Your task to perform on an android device: read, delete, or share a saved page in the chrome app Image 0: 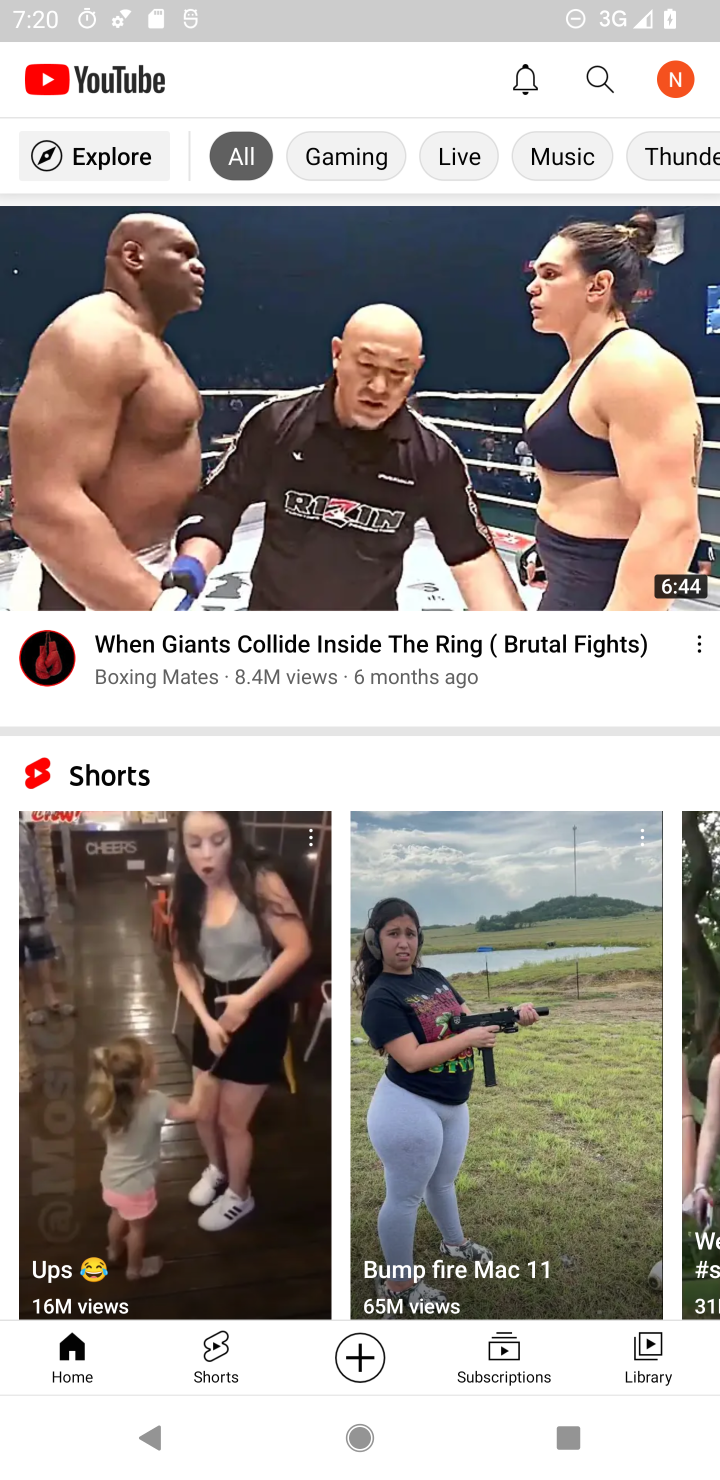
Step 0: press home button
Your task to perform on an android device: read, delete, or share a saved page in the chrome app Image 1: 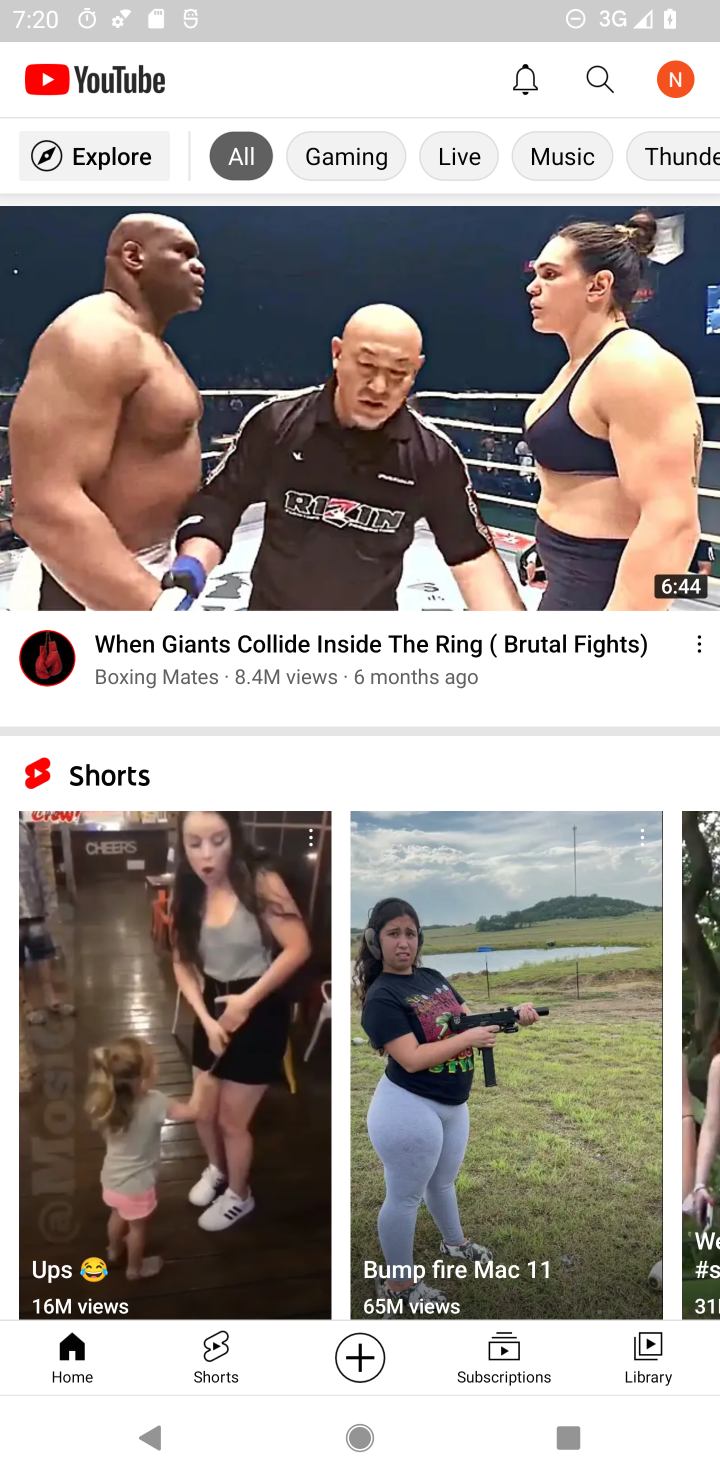
Step 1: click (492, 169)
Your task to perform on an android device: read, delete, or share a saved page in the chrome app Image 2: 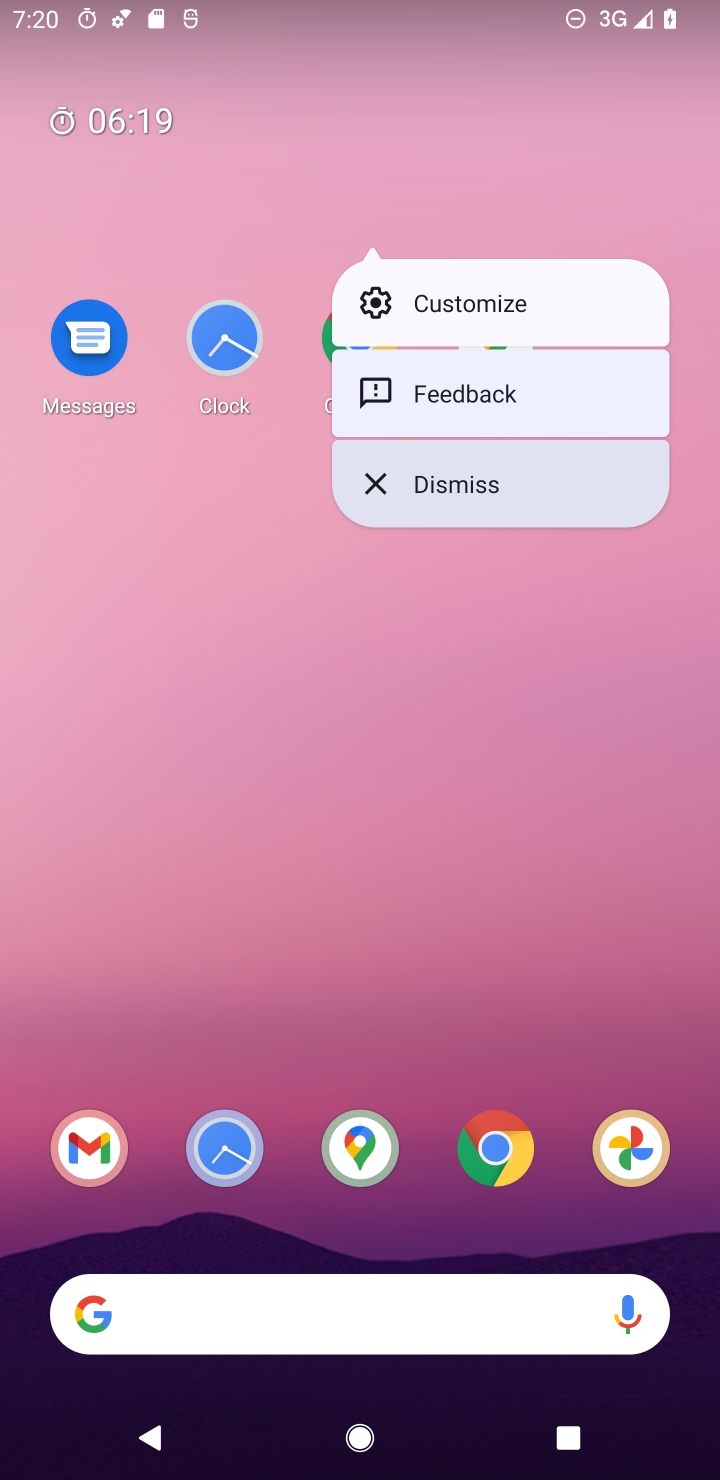
Step 2: drag from (414, 1214) to (474, 299)
Your task to perform on an android device: read, delete, or share a saved page in the chrome app Image 3: 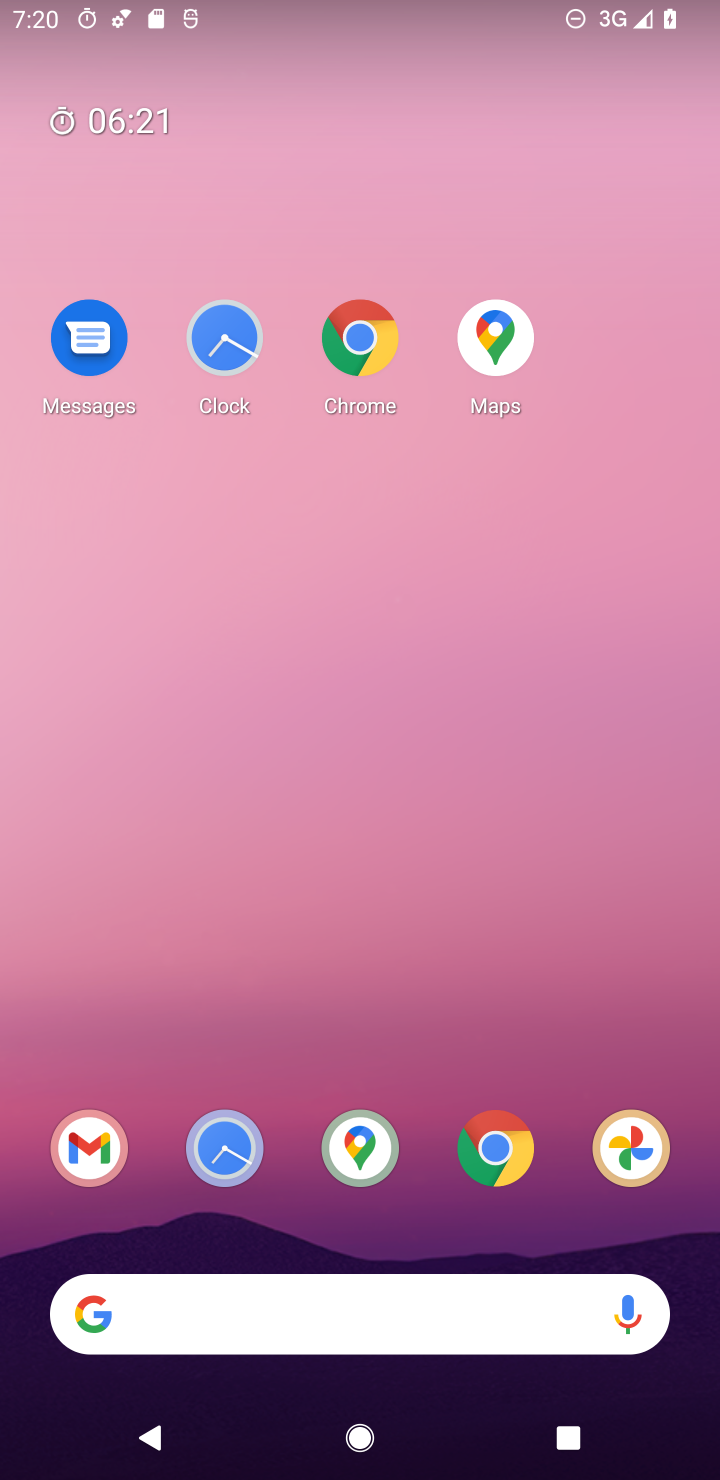
Step 3: drag from (431, 845) to (529, 146)
Your task to perform on an android device: read, delete, or share a saved page in the chrome app Image 4: 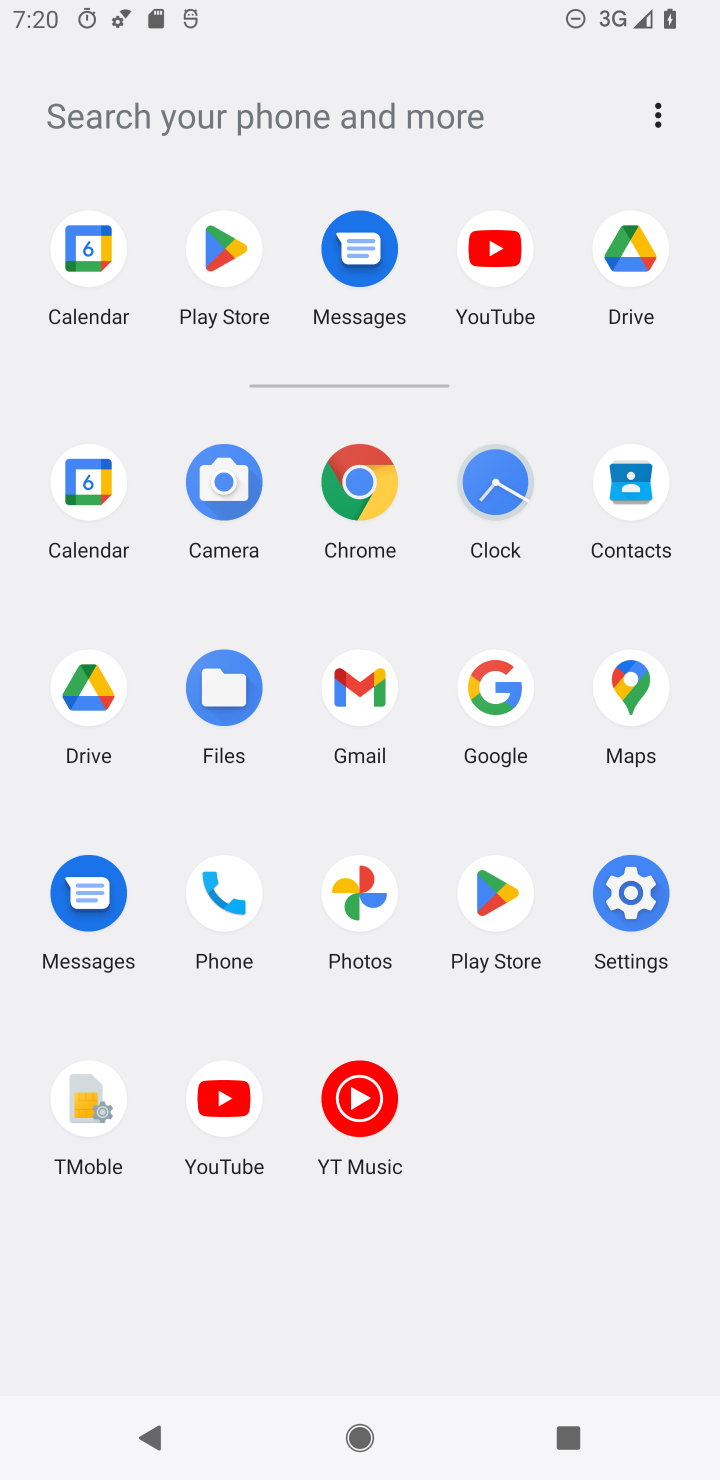
Step 4: click (358, 479)
Your task to perform on an android device: read, delete, or share a saved page in the chrome app Image 5: 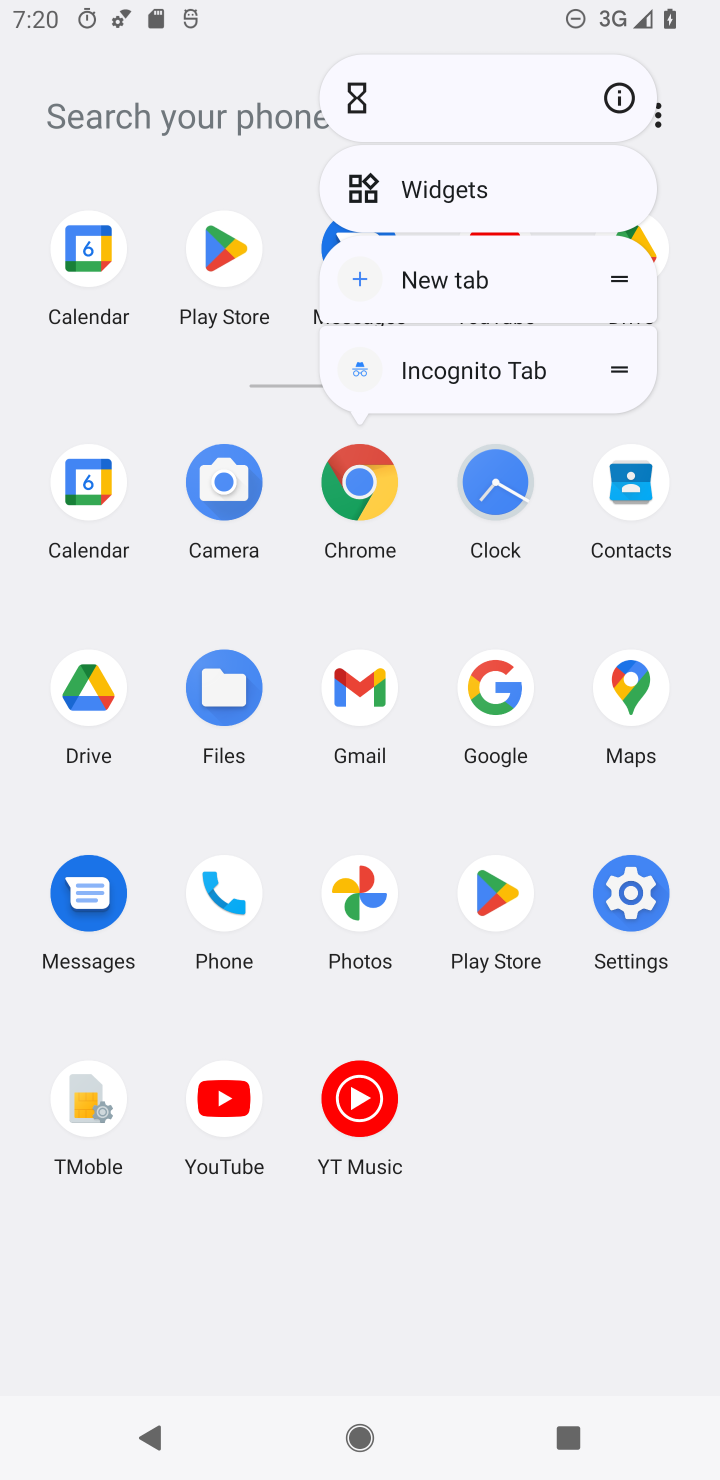
Step 5: click (622, 100)
Your task to perform on an android device: read, delete, or share a saved page in the chrome app Image 6: 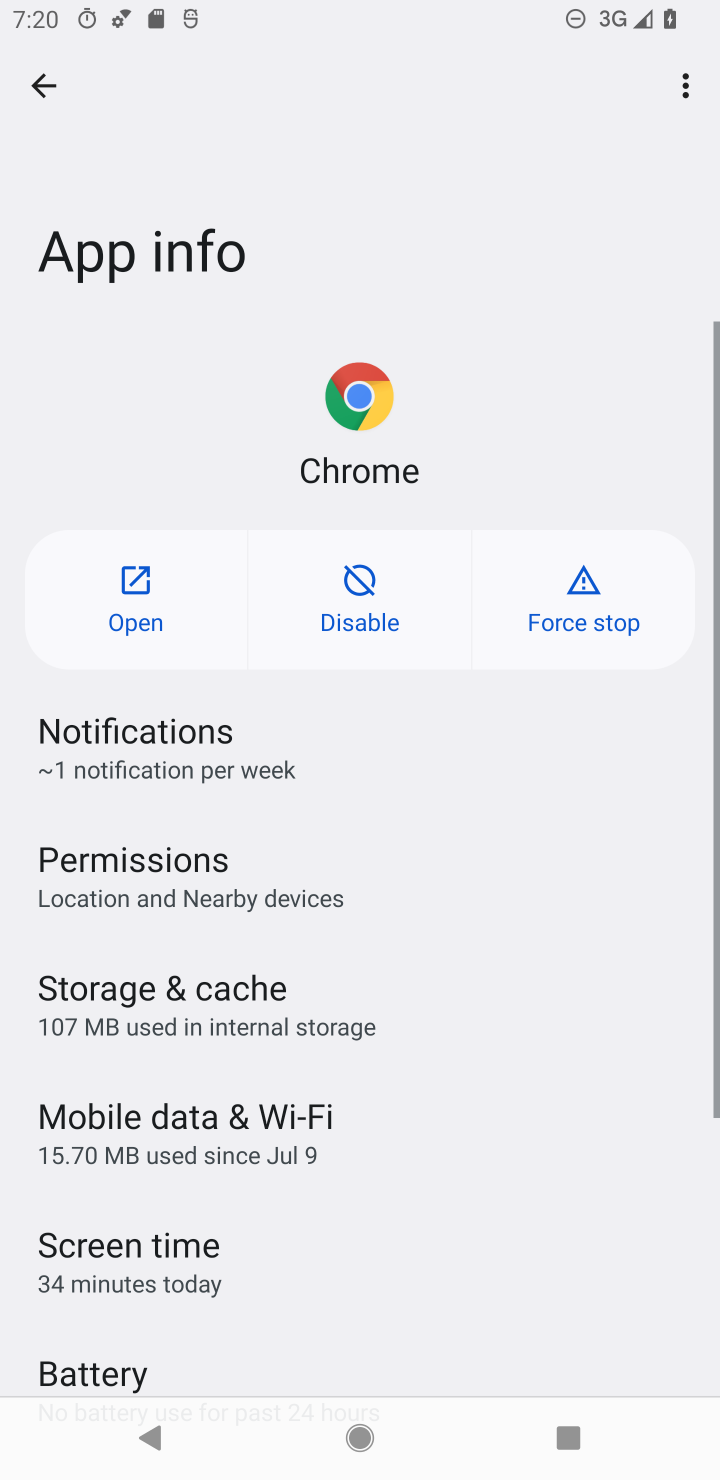
Step 6: click (162, 543)
Your task to perform on an android device: read, delete, or share a saved page in the chrome app Image 7: 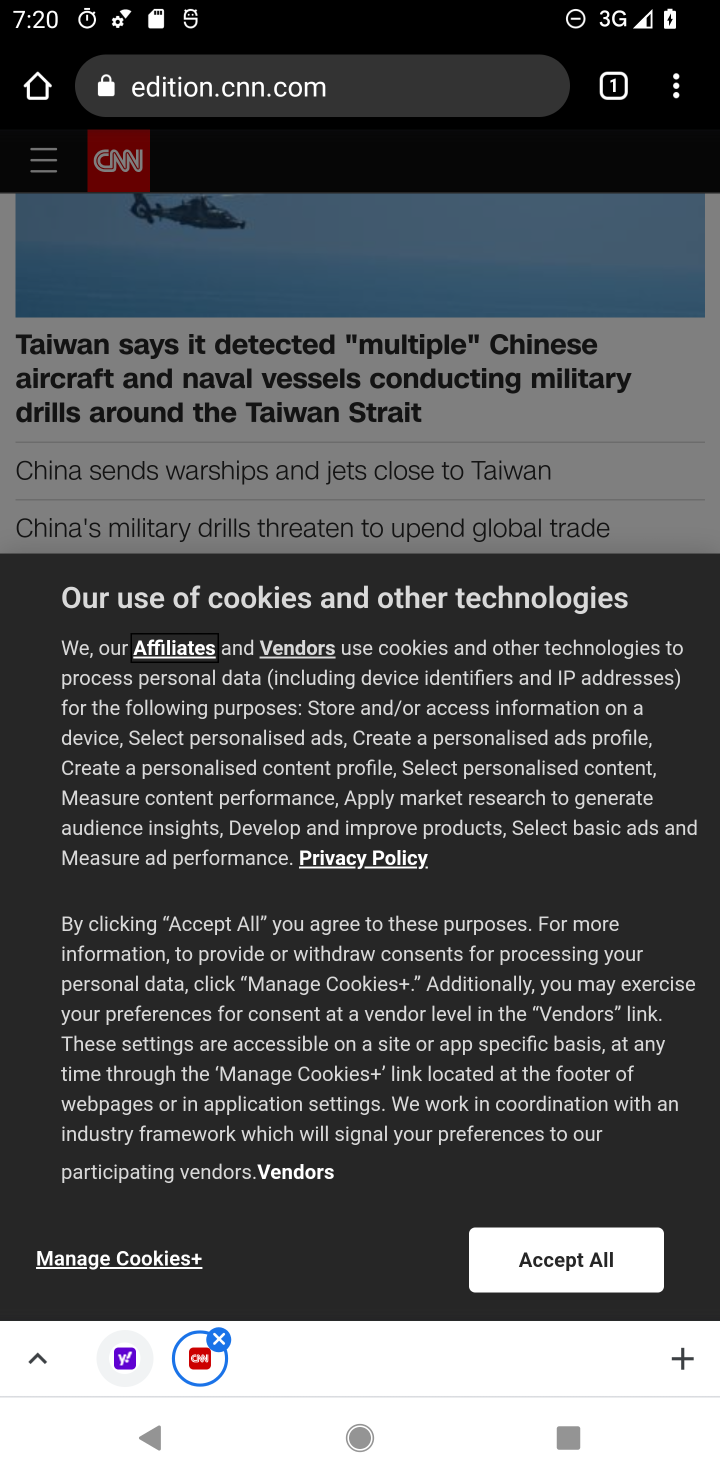
Step 7: drag from (668, 81) to (478, 441)
Your task to perform on an android device: read, delete, or share a saved page in the chrome app Image 8: 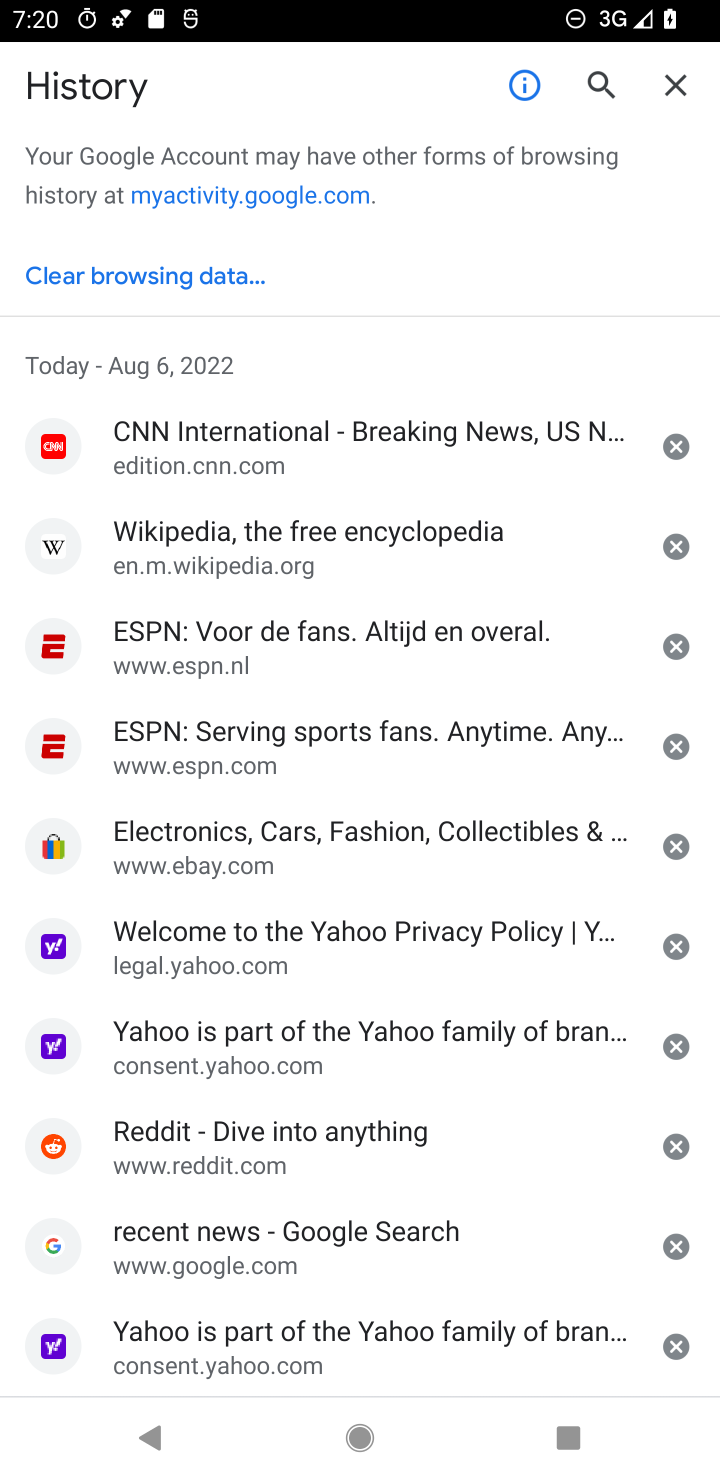
Step 8: drag from (337, 1146) to (427, 559)
Your task to perform on an android device: read, delete, or share a saved page in the chrome app Image 9: 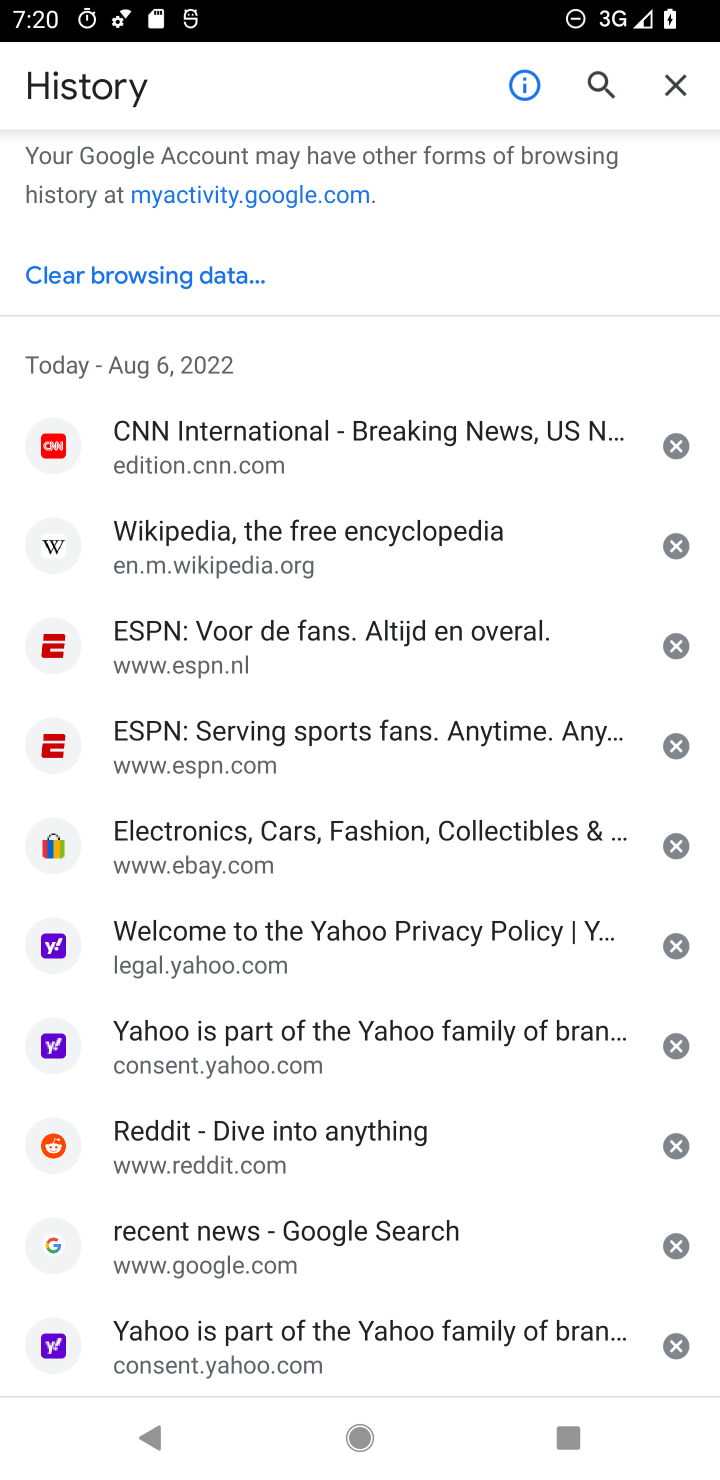
Step 9: drag from (426, 1018) to (431, 664)
Your task to perform on an android device: read, delete, or share a saved page in the chrome app Image 10: 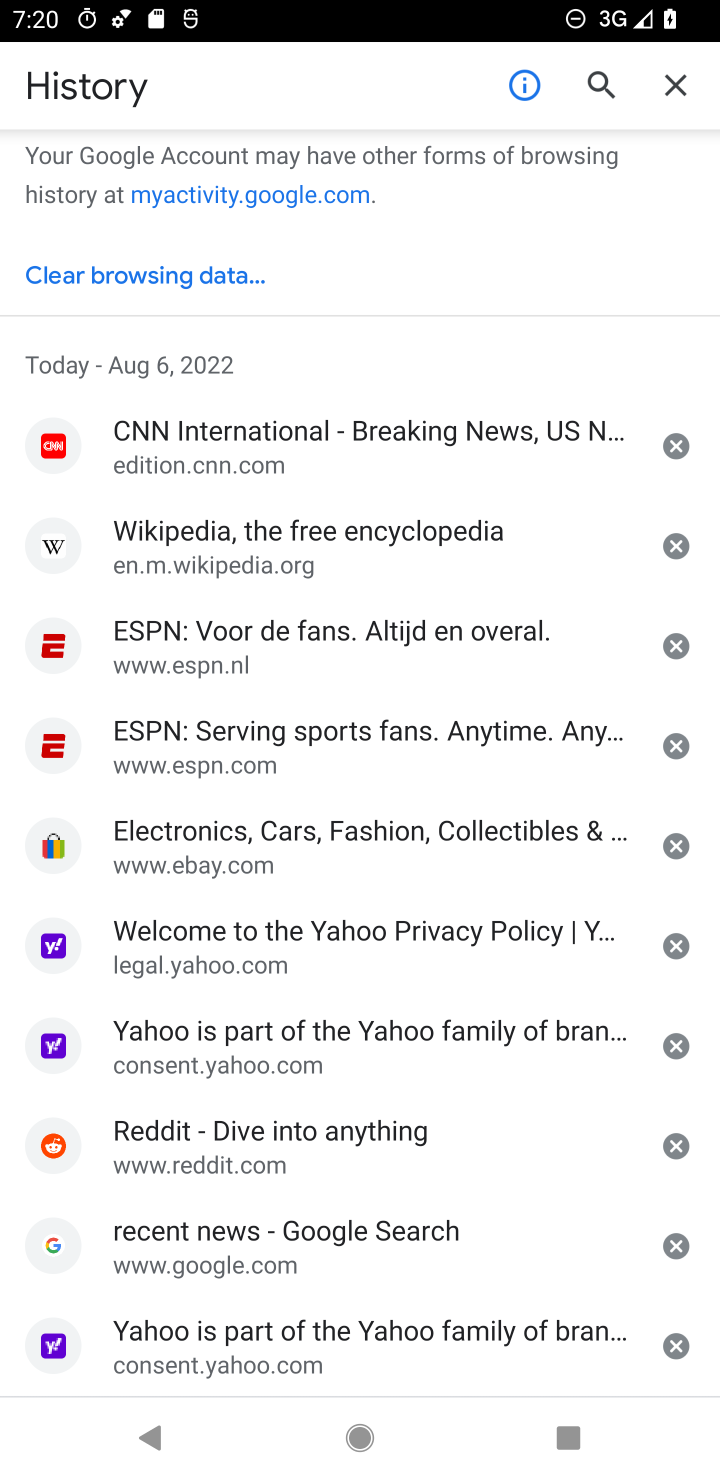
Step 10: click (190, 927)
Your task to perform on an android device: read, delete, or share a saved page in the chrome app Image 11: 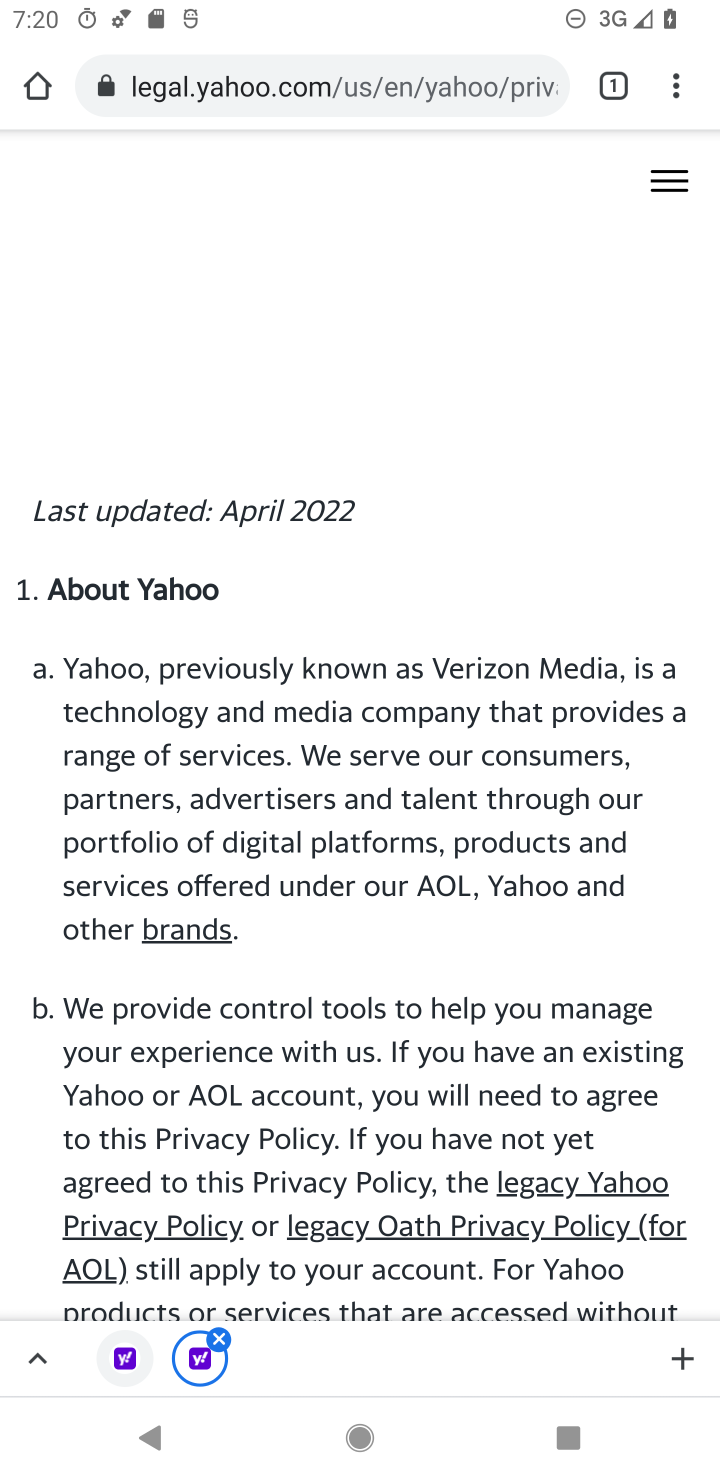
Step 11: task complete